Your task to perform on an android device: toggle javascript in the chrome app Image 0: 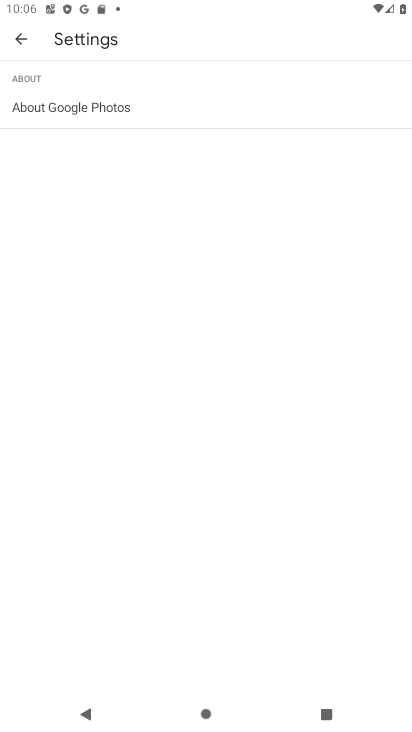
Step 0: press home button
Your task to perform on an android device: toggle javascript in the chrome app Image 1: 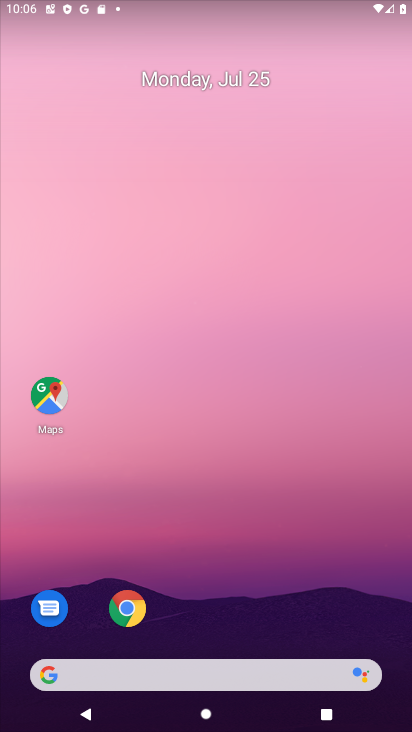
Step 1: drag from (218, 144) to (222, 107)
Your task to perform on an android device: toggle javascript in the chrome app Image 2: 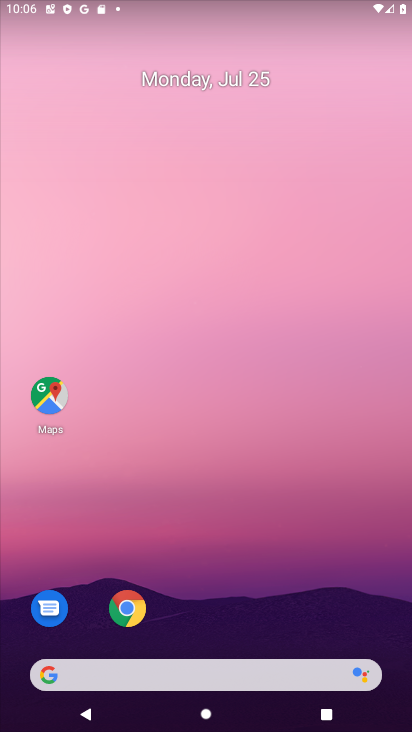
Step 2: drag from (184, 628) to (266, 71)
Your task to perform on an android device: toggle javascript in the chrome app Image 3: 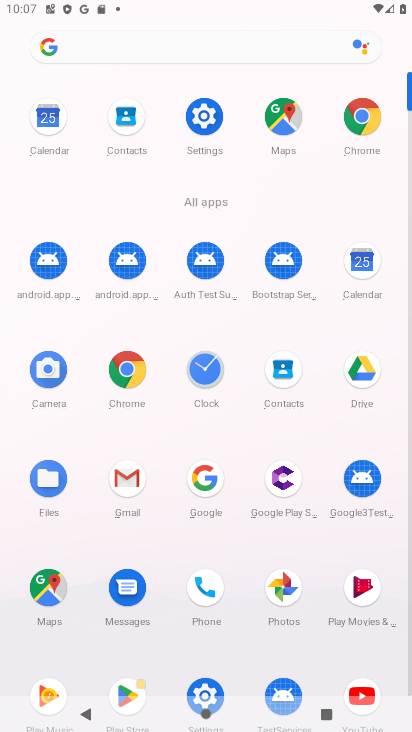
Step 3: click (374, 147)
Your task to perform on an android device: toggle javascript in the chrome app Image 4: 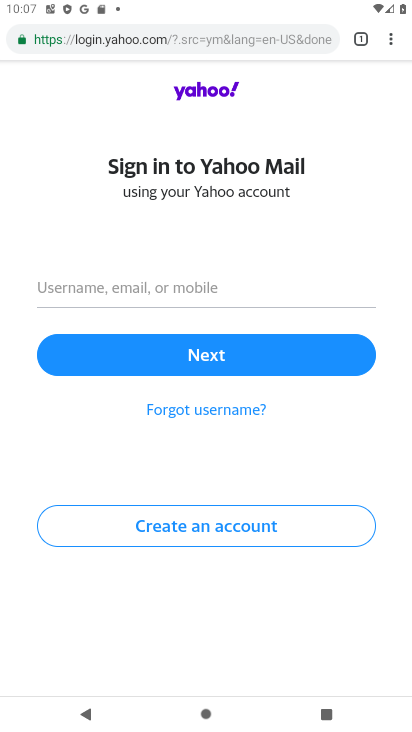
Step 4: click (389, 43)
Your task to perform on an android device: toggle javascript in the chrome app Image 5: 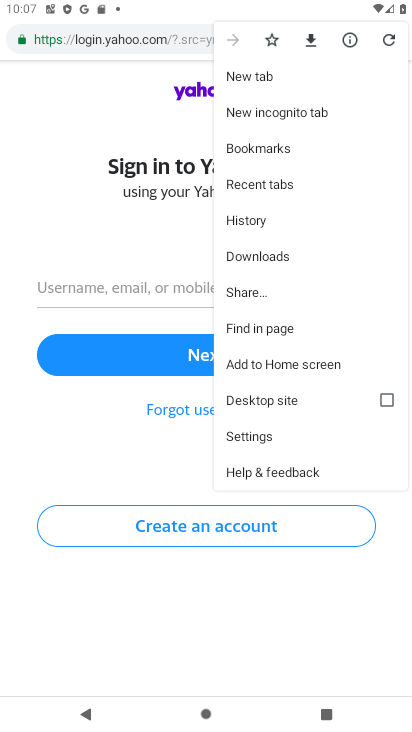
Step 5: click (257, 429)
Your task to perform on an android device: toggle javascript in the chrome app Image 6: 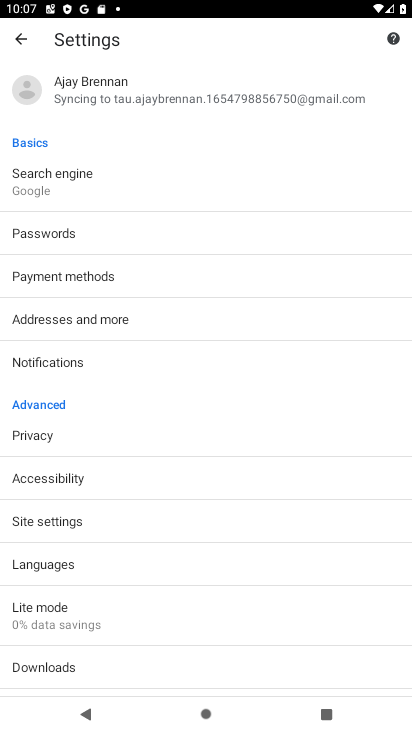
Step 6: click (85, 524)
Your task to perform on an android device: toggle javascript in the chrome app Image 7: 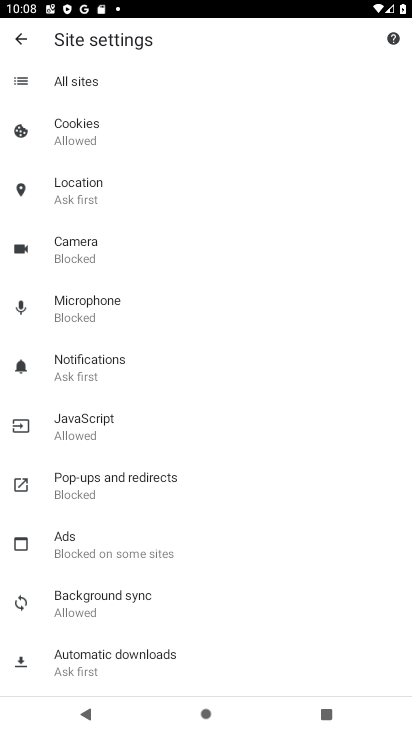
Step 7: click (92, 433)
Your task to perform on an android device: toggle javascript in the chrome app Image 8: 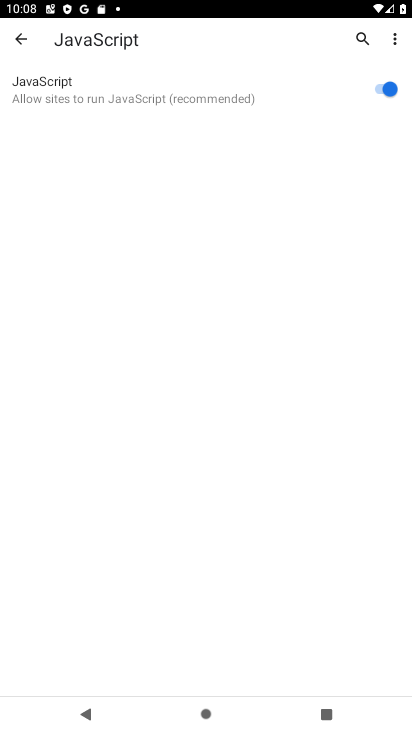
Step 8: click (385, 78)
Your task to perform on an android device: toggle javascript in the chrome app Image 9: 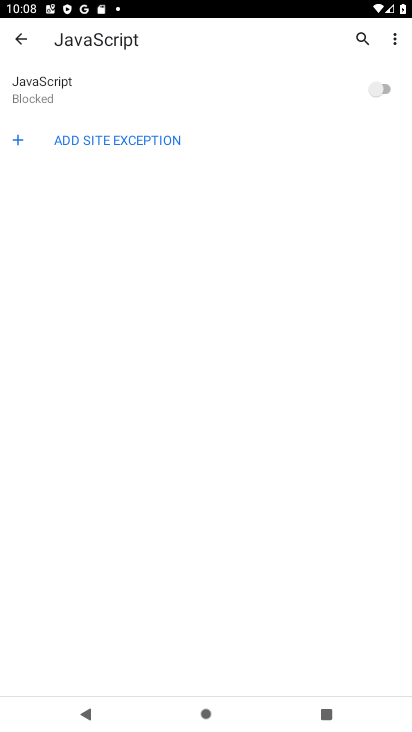
Step 9: task complete